Your task to perform on an android device: Open the Play Movies app and select the watchlist tab. Image 0: 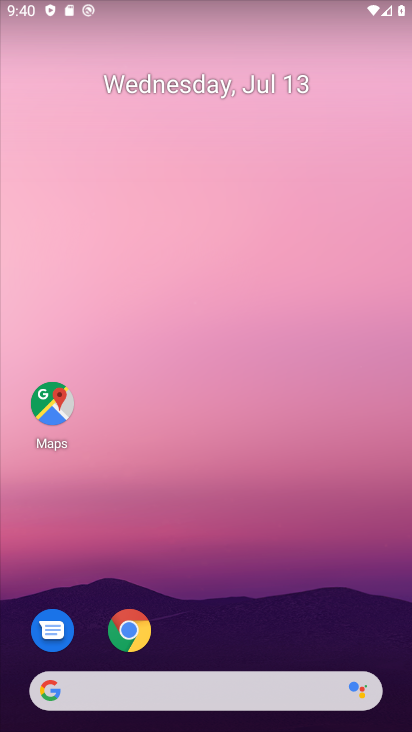
Step 0: drag from (269, 234) to (305, 59)
Your task to perform on an android device: Open the Play Movies app and select the watchlist tab. Image 1: 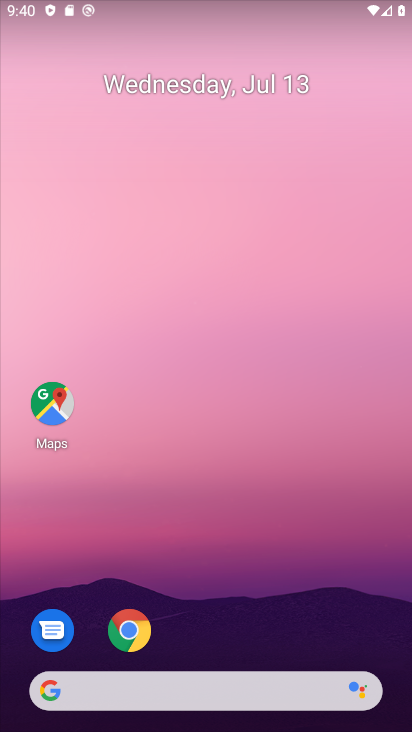
Step 1: drag from (286, 644) to (300, 229)
Your task to perform on an android device: Open the Play Movies app and select the watchlist tab. Image 2: 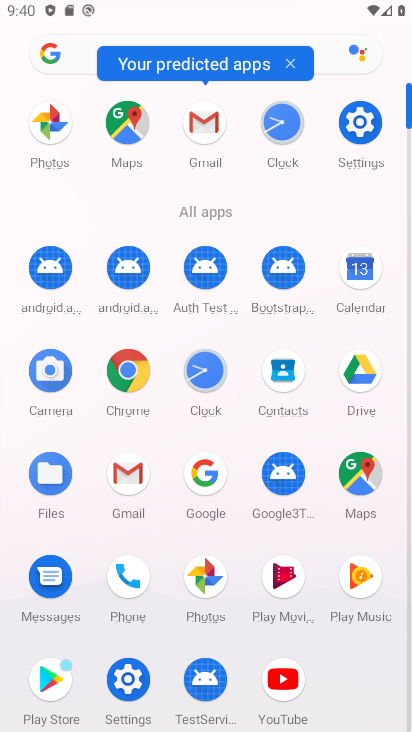
Step 2: click (290, 581)
Your task to perform on an android device: Open the Play Movies app and select the watchlist tab. Image 3: 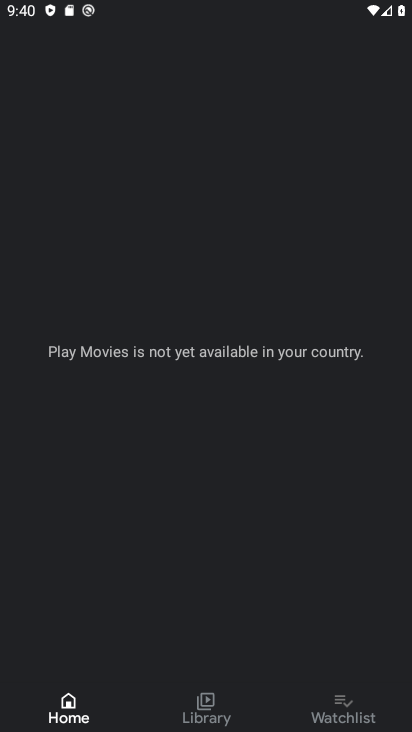
Step 3: click (347, 705)
Your task to perform on an android device: Open the Play Movies app and select the watchlist tab. Image 4: 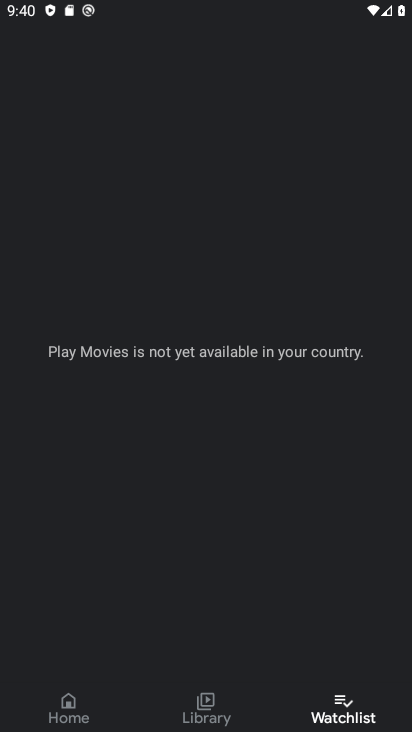
Step 4: task complete